Your task to perform on an android device: View the shopping cart on costco.com. Image 0: 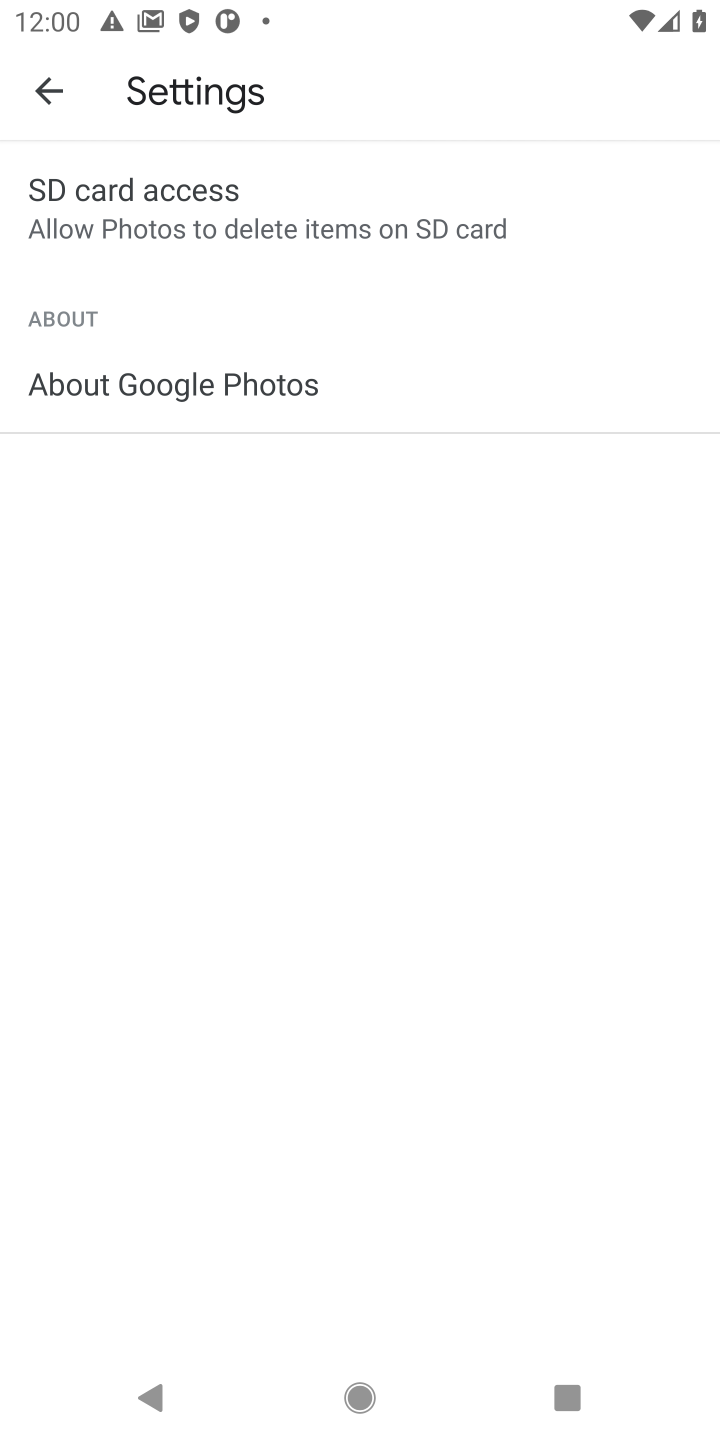
Step 0: press home button
Your task to perform on an android device: View the shopping cart on costco.com. Image 1: 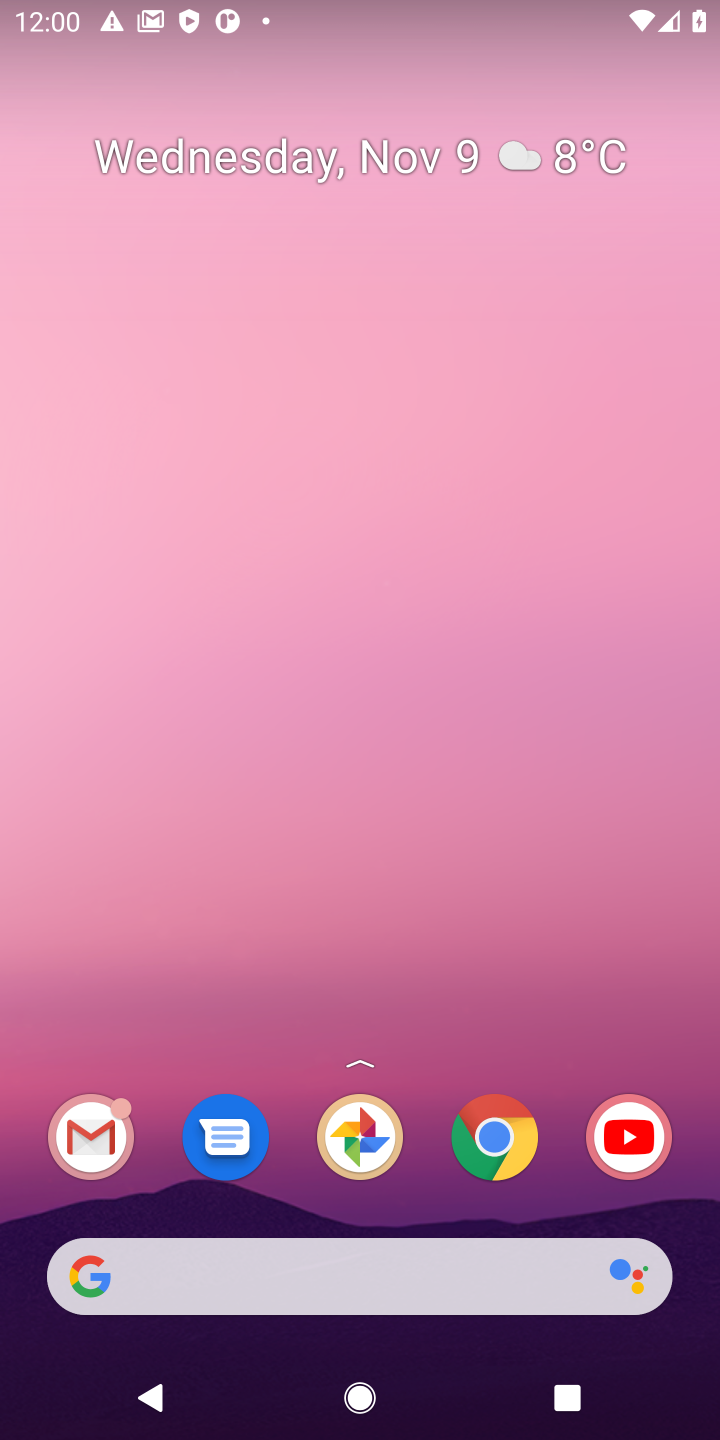
Step 1: click (498, 1133)
Your task to perform on an android device: View the shopping cart on costco.com. Image 2: 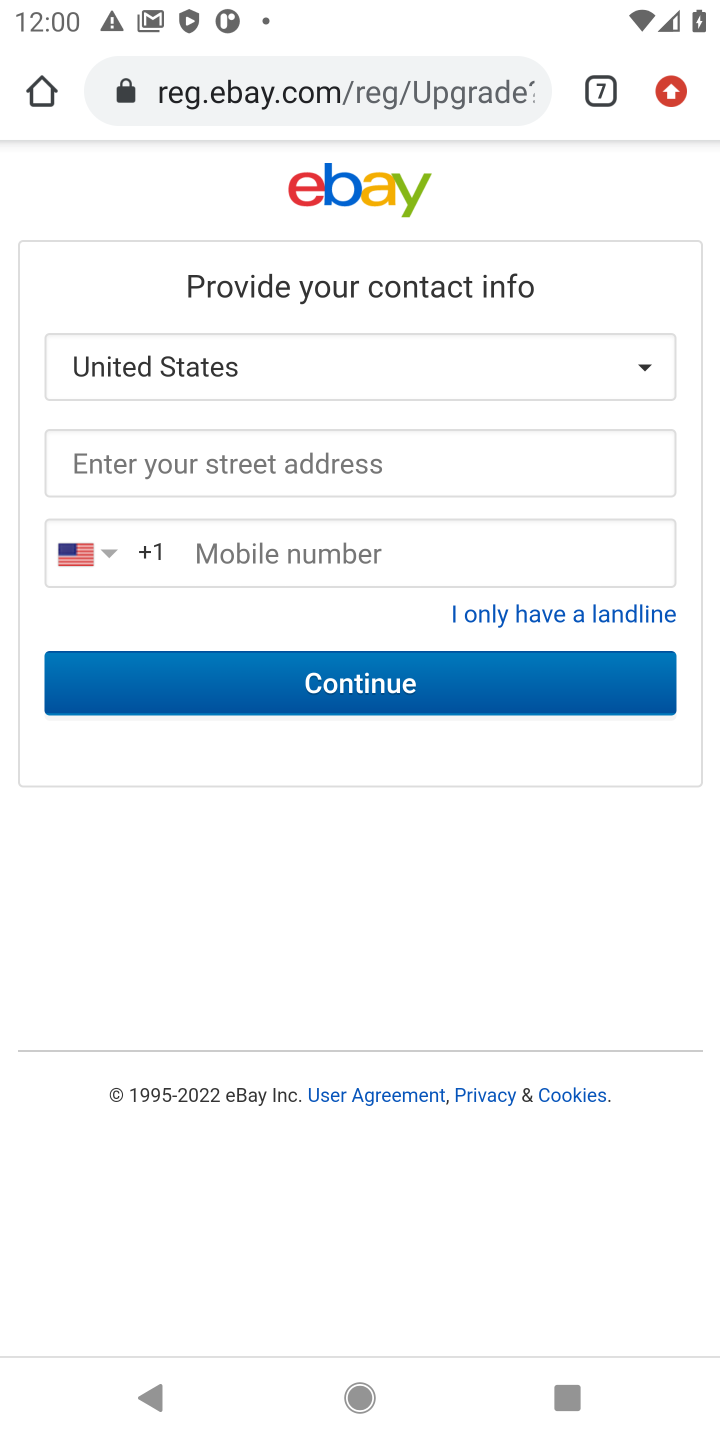
Step 2: click (607, 91)
Your task to perform on an android device: View the shopping cart on costco.com. Image 3: 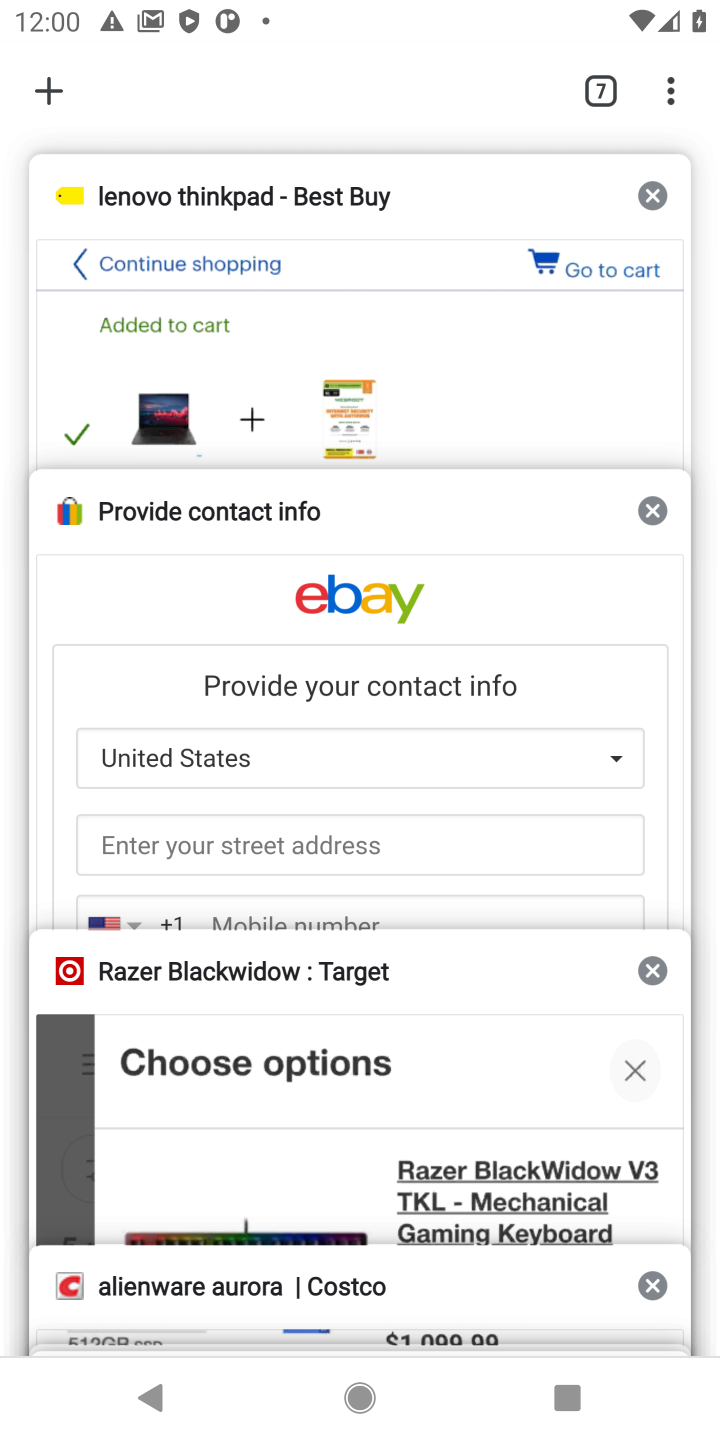
Step 3: click (108, 1280)
Your task to perform on an android device: View the shopping cart on costco.com. Image 4: 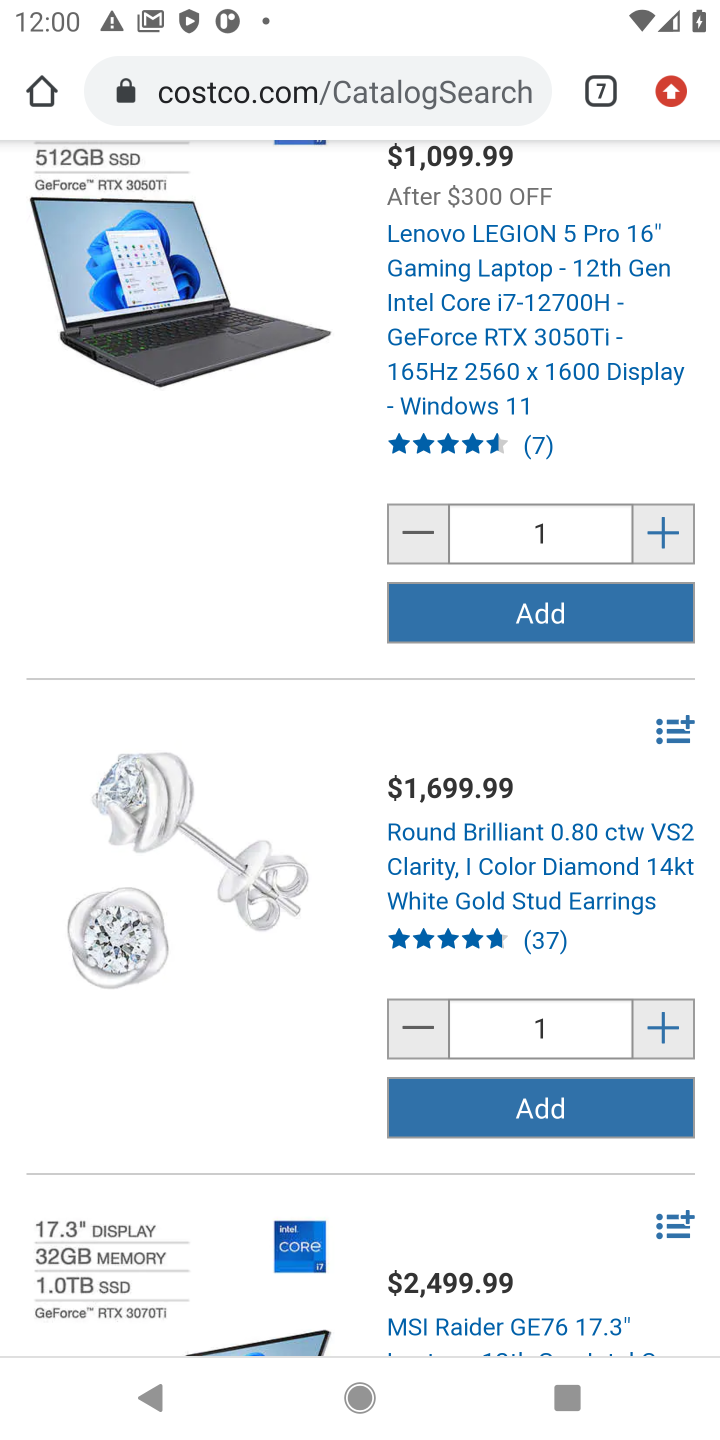
Step 4: drag from (247, 432) to (351, 1420)
Your task to perform on an android device: View the shopping cart on costco.com. Image 5: 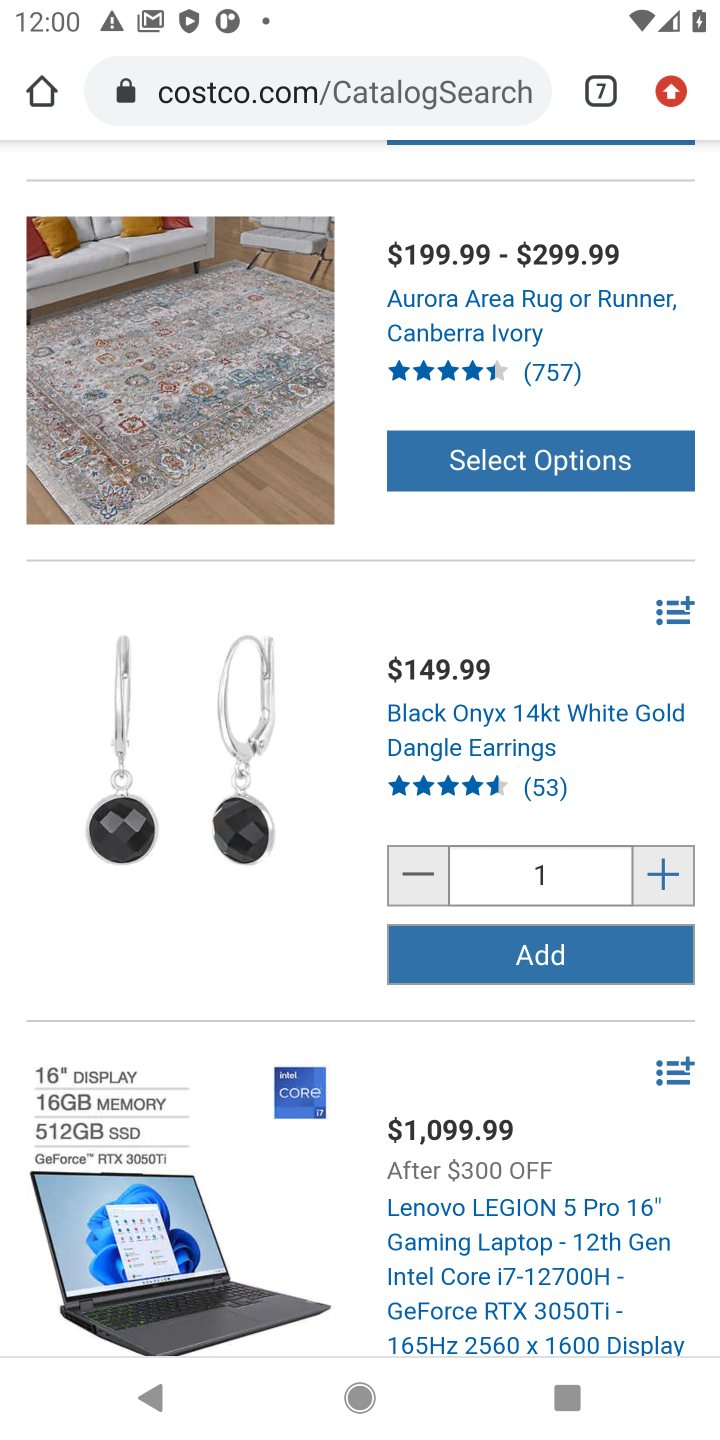
Step 5: drag from (641, 212) to (705, 1138)
Your task to perform on an android device: View the shopping cart on costco.com. Image 6: 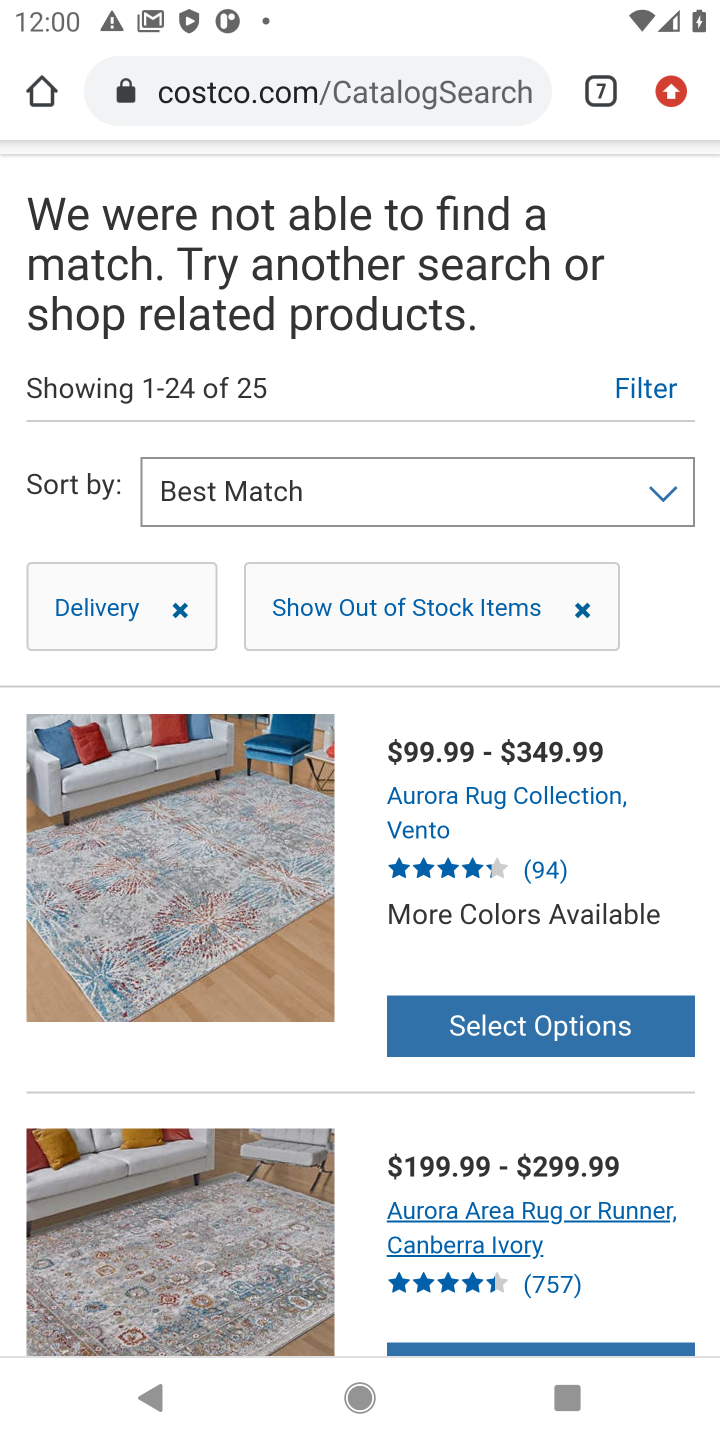
Step 6: drag from (593, 205) to (554, 995)
Your task to perform on an android device: View the shopping cart on costco.com. Image 7: 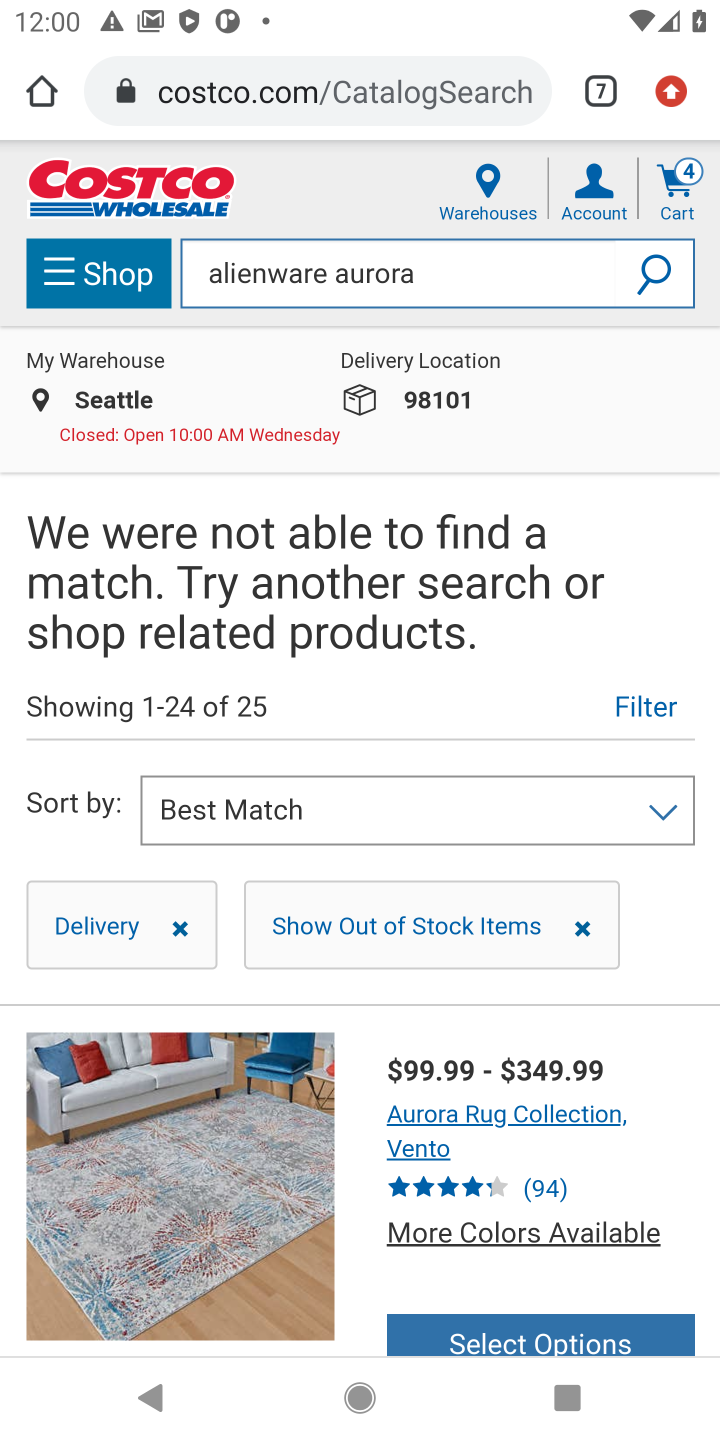
Step 7: click (673, 184)
Your task to perform on an android device: View the shopping cart on costco.com. Image 8: 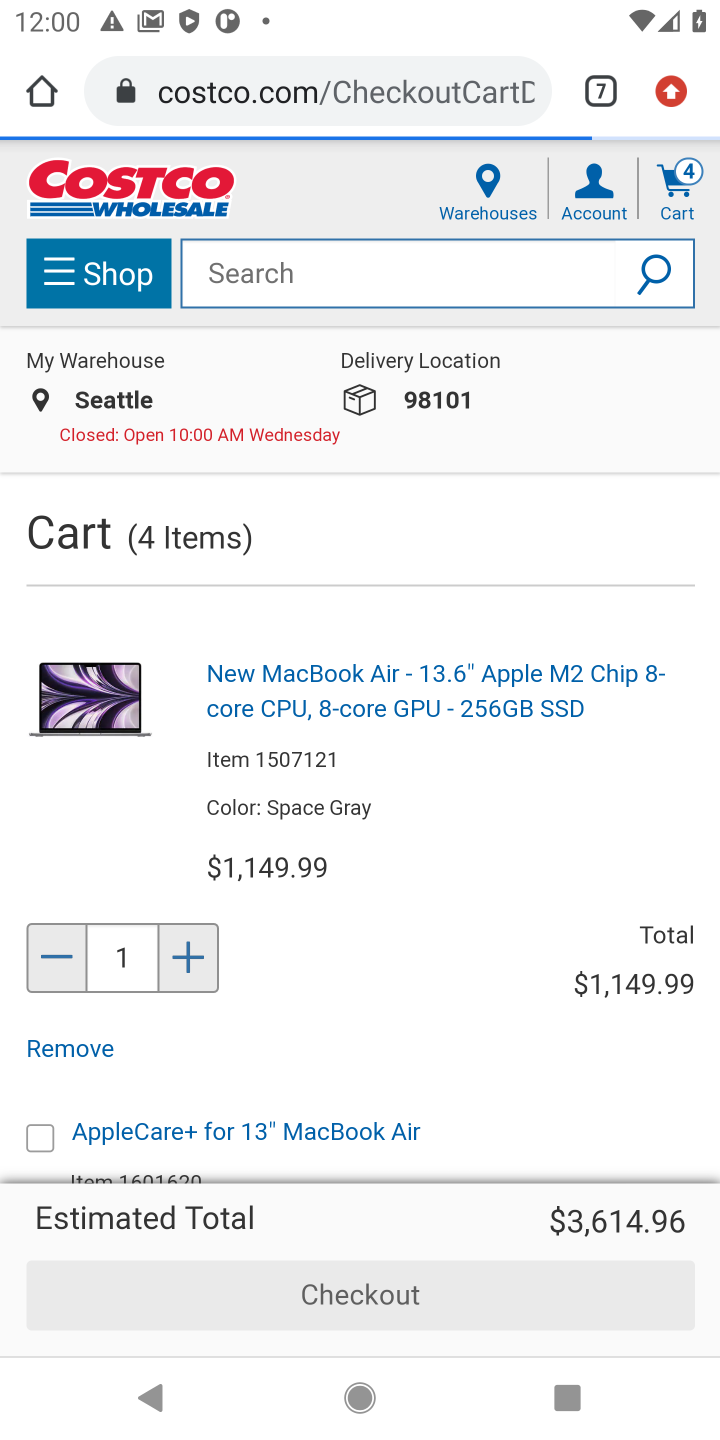
Step 8: task complete